Your task to perform on an android device: turn off smart reply in the gmail app Image 0: 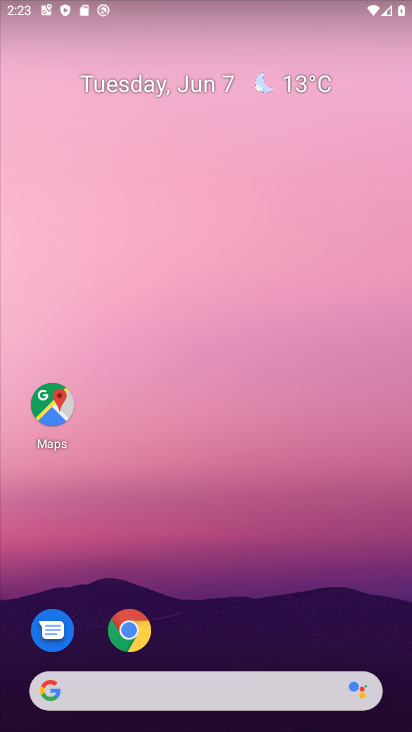
Step 0: drag from (248, 635) to (276, 387)
Your task to perform on an android device: turn off smart reply in the gmail app Image 1: 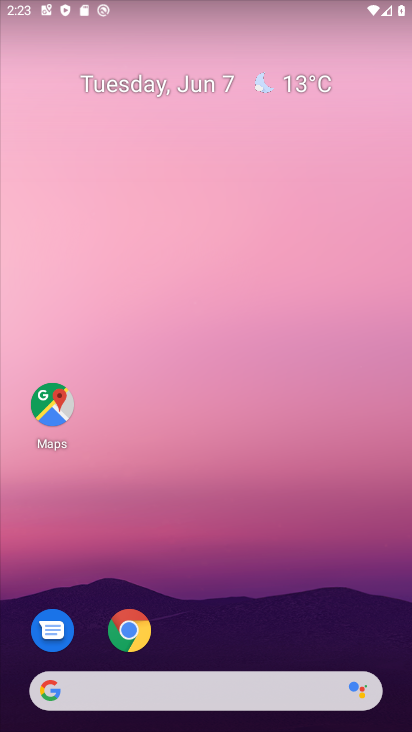
Step 1: drag from (325, 635) to (406, 33)
Your task to perform on an android device: turn off smart reply in the gmail app Image 2: 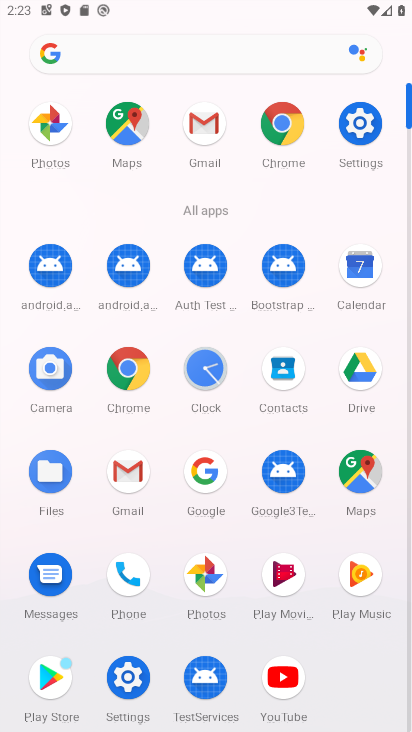
Step 2: click (196, 116)
Your task to perform on an android device: turn off smart reply in the gmail app Image 3: 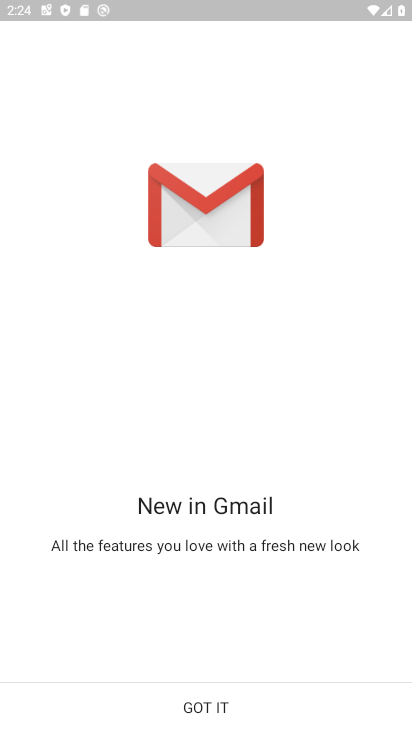
Step 3: click (216, 693)
Your task to perform on an android device: turn off smart reply in the gmail app Image 4: 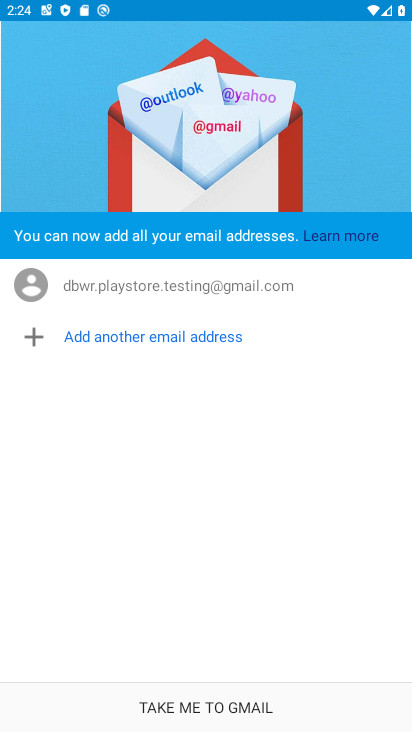
Step 4: click (215, 704)
Your task to perform on an android device: turn off smart reply in the gmail app Image 5: 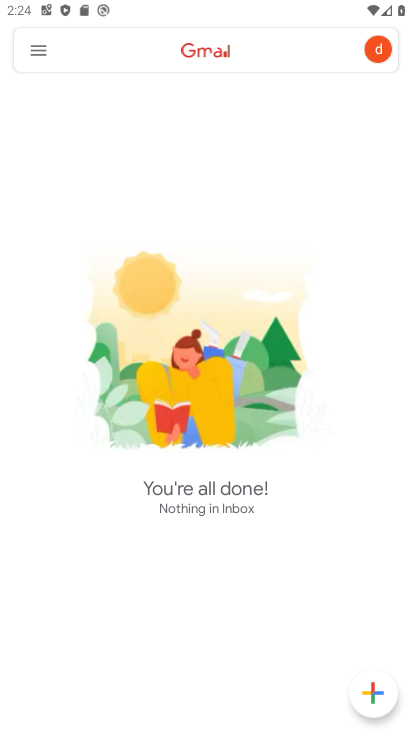
Step 5: click (32, 45)
Your task to perform on an android device: turn off smart reply in the gmail app Image 6: 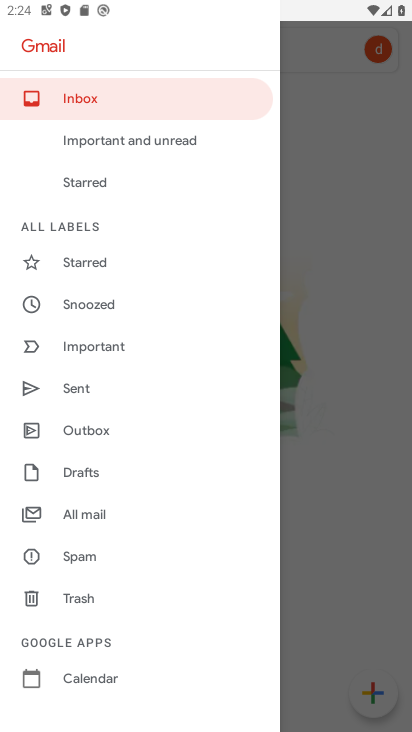
Step 6: drag from (145, 664) to (147, 523)
Your task to perform on an android device: turn off smart reply in the gmail app Image 7: 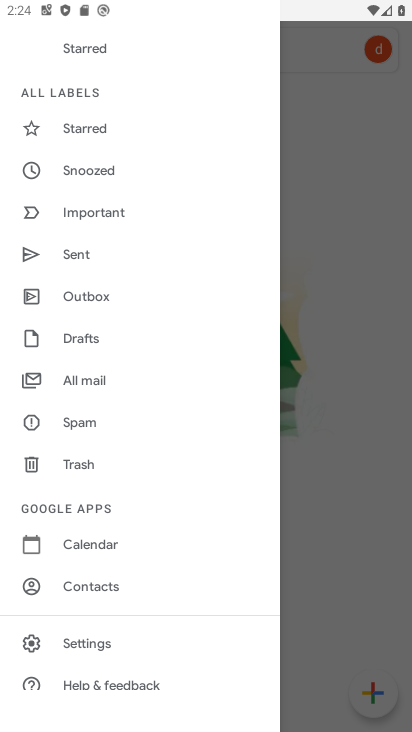
Step 7: click (109, 641)
Your task to perform on an android device: turn off smart reply in the gmail app Image 8: 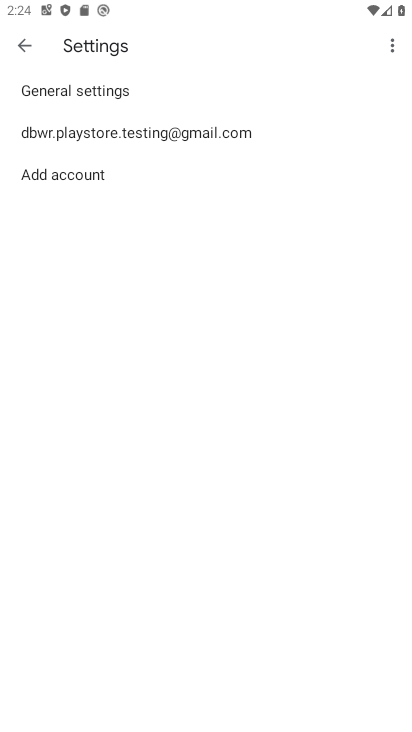
Step 8: click (42, 85)
Your task to perform on an android device: turn off smart reply in the gmail app Image 9: 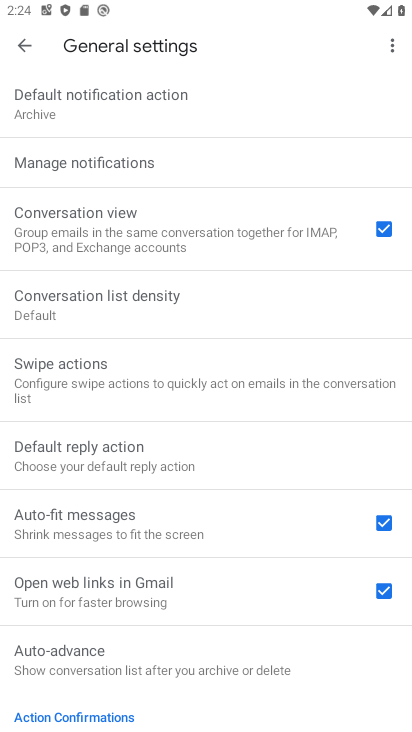
Step 9: drag from (209, 704) to (237, 467)
Your task to perform on an android device: turn off smart reply in the gmail app Image 10: 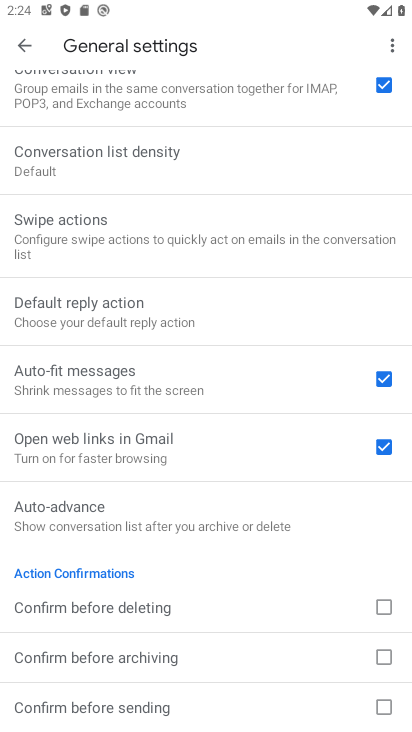
Step 10: drag from (224, 248) to (222, 480)
Your task to perform on an android device: turn off smart reply in the gmail app Image 11: 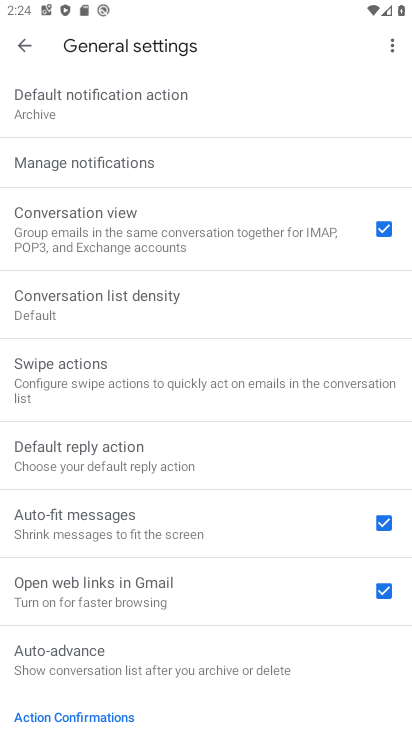
Step 11: click (215, 448)
Your task to perform on an android device: turn off smart reply in the gmail app Image 12: 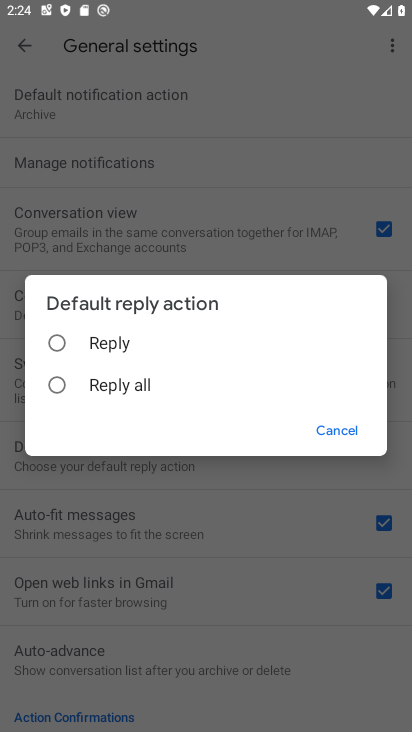
Step 12: click (321, 431)
Your task to perform on an android device: turn off smart reply in the gmail app Image 13: 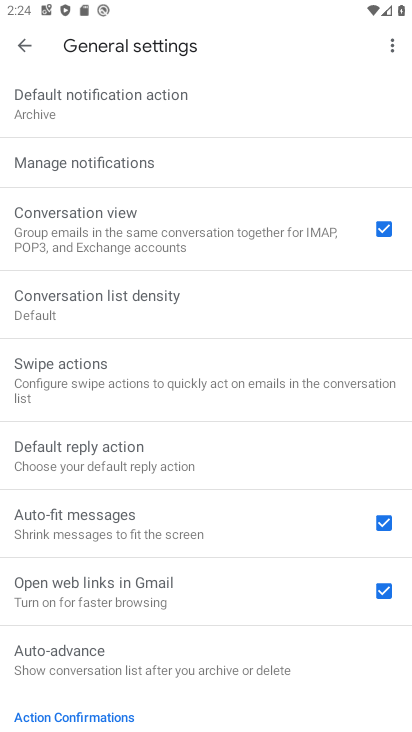
Step 13: drag from (251, 111) to (242, 394)
Your task to perform on an android device: turn off smart reply in the gmail app Image 14: 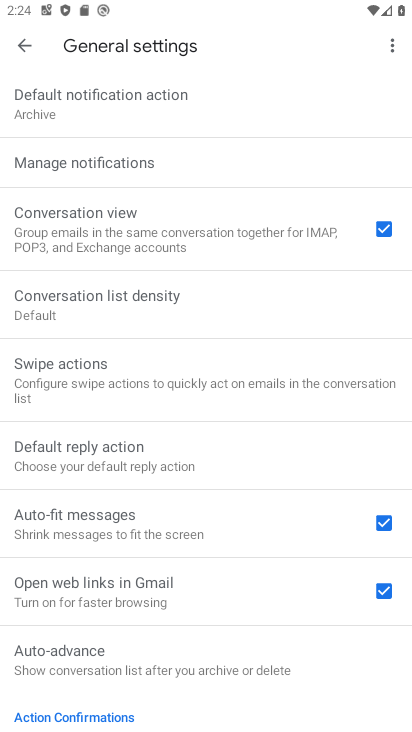
Step 14: click (390, 42)
Your task to perform on an android device: turn off smart reply in the gmail app Image 15: 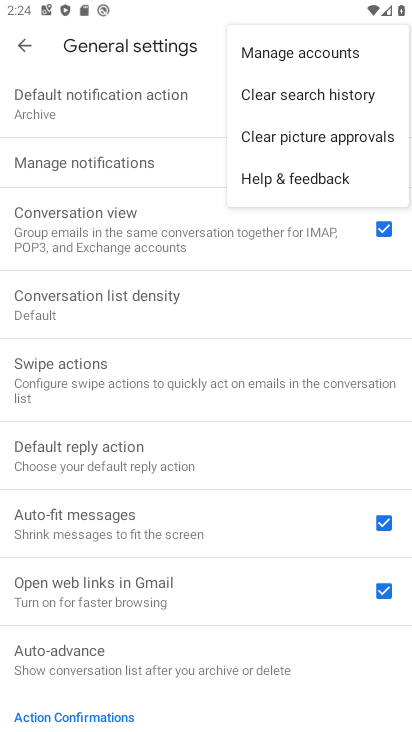
Step 15: click (290, 52)
Your task to perform on an android device: turn off smart reply in the gmail app Image 16: 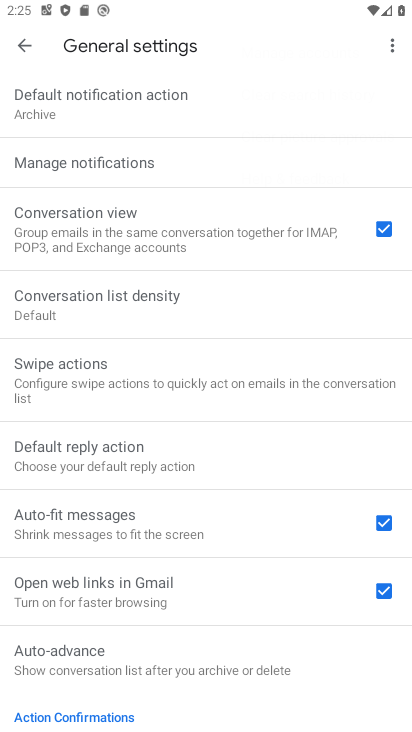
Step 16: click (290, 52)
Your task to perform on an android device: turn off smart reply in the gmail app Image 17: 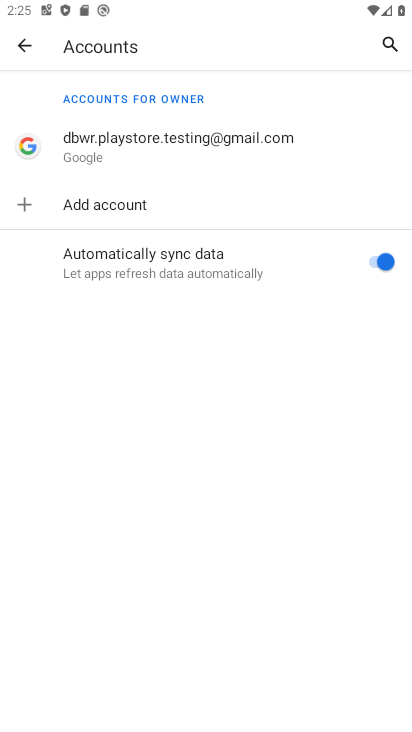
Step 17: task complete